Your task to perform on an android device: Open Google Chrome and click the shortcut for Amazon.com Image 0: 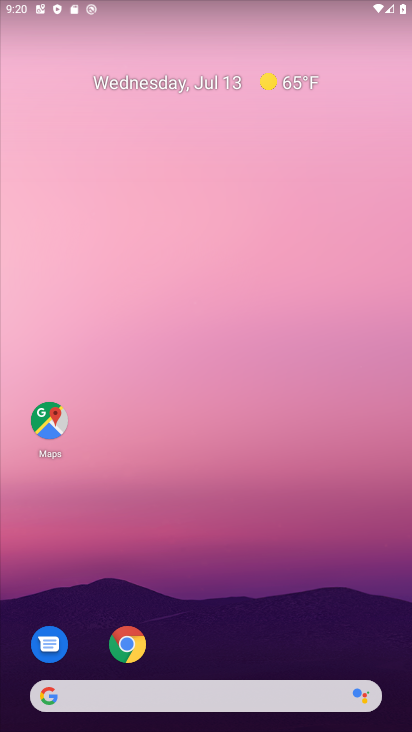
Step 0: drag from (323, 539) to (313, 60)
Your task to perform on an android device: Open Google Chrome and click the shortcut for Amazon.com Image 1: 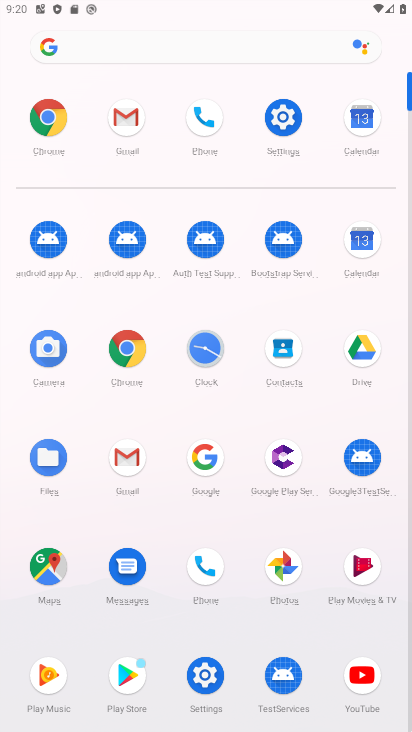
Step 1: click (39, 117)
Your task to perform on an android device: Open Google Chrome and click the shortcut for Amazon.com Image 2: 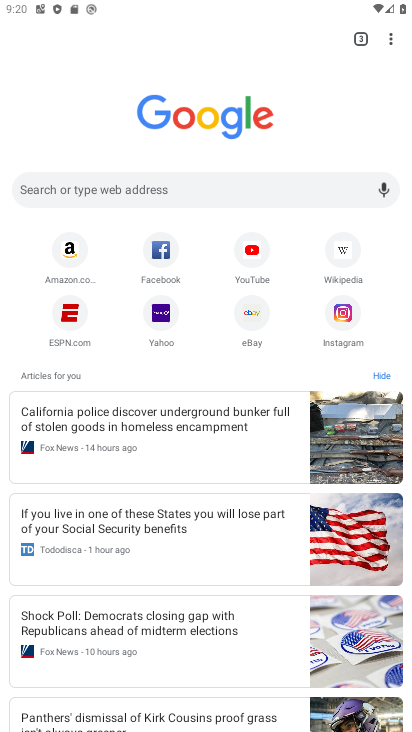
Step 2: click (66, 246)
Your task to perform on an android device: Open Google Chrome and click the shortcut for Amazon.com Image 3: 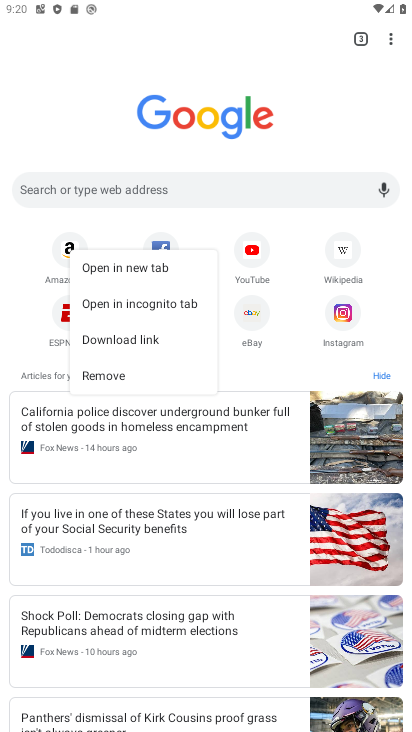
Step 3: click (48, 90)
Your task to perform on an android device: Open Google Chrome and click the shortcut for Amazon.com Image 4: 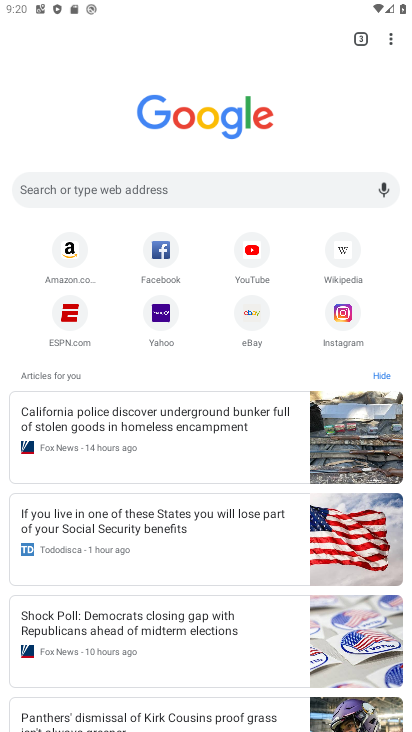
Step 4: click (72, 262)
Your task to perform on an android device: Open Google Chrome and click the shortcut for Amazon.com Image 5: 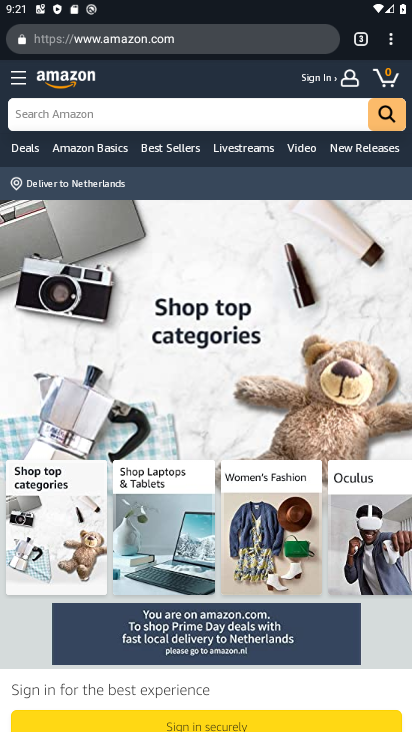
Step 5: task complete